Your task to perform on an android device: turn off location history Image 0: 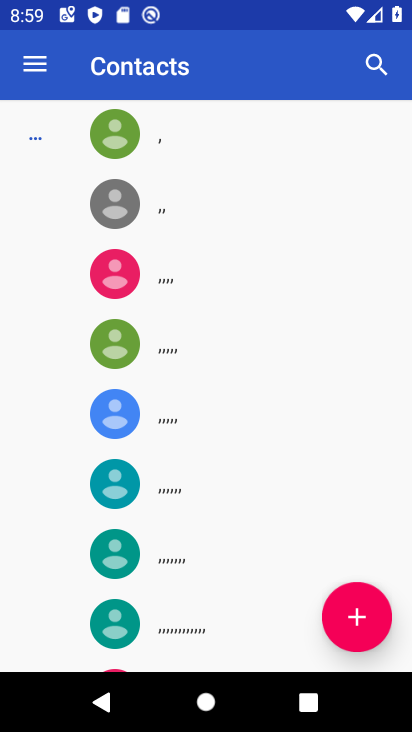
Step 0: press home button
Your task to perform on an android device: turn off location history Image 1: 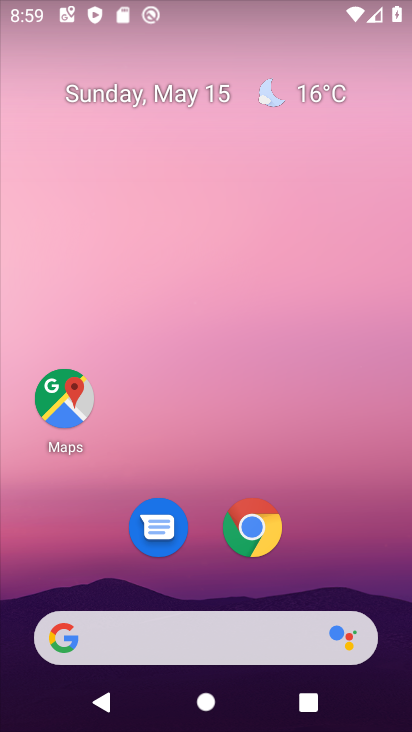
Step 1: click (70, 409)
Your task to perform on an android device: turn off location history Image 2: 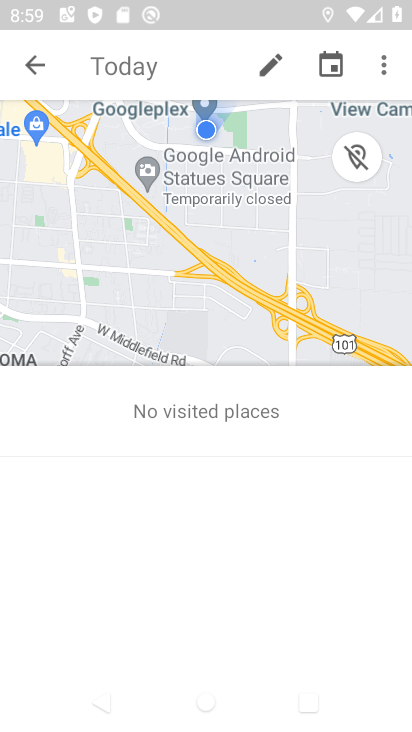
Step 2: click (386, 66)
Your task to perform on an android device: turn off location history Image 3: 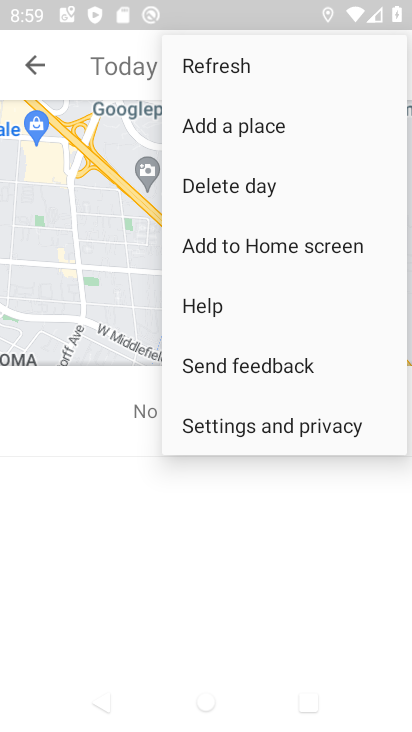
Step 3: click (241, 427)
Your task to perform on an android device: turn off location history Image 4: 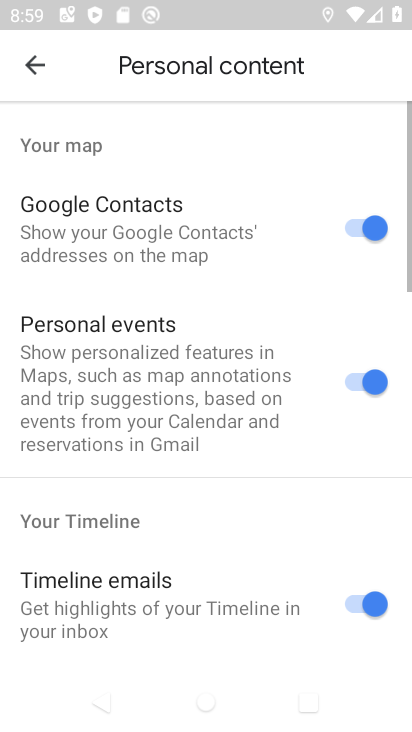
Step 4: drag from (163, 595) to (146, 26)
Your task to perform on an android device: turn off location history Image 5: 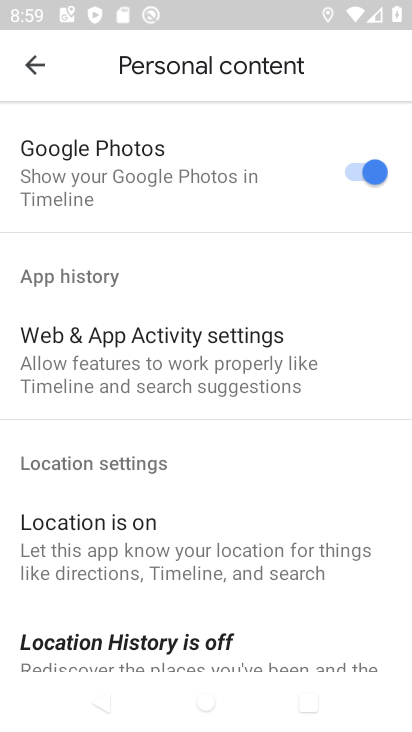
Step 5: drag from (135, 549) to (144, 149)
Your task to perform on an android device: turn off location history Image 6: 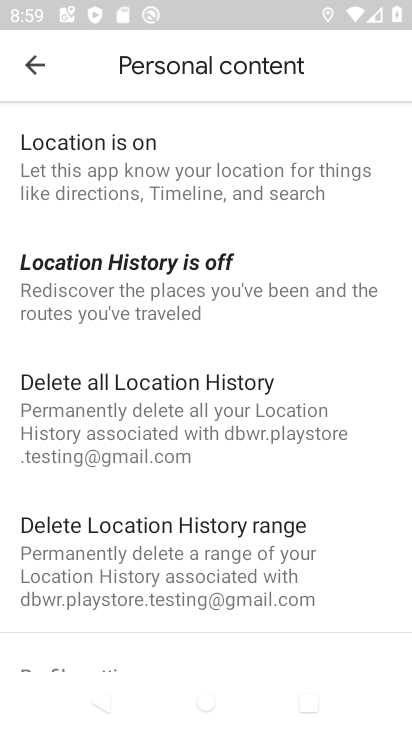
Step 6: click (96, 282)
Your task to perform on an android device: turn off location history Image 7: 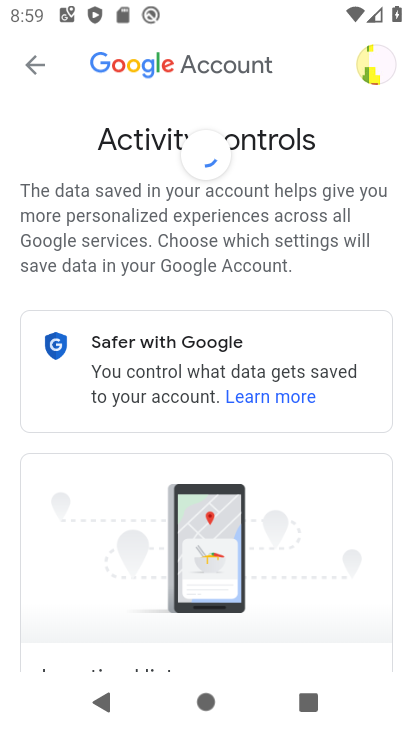
Step 7: drag from (291, 573) to (270, 13)
Your task to perform on an android device: turn off location history Image 8: 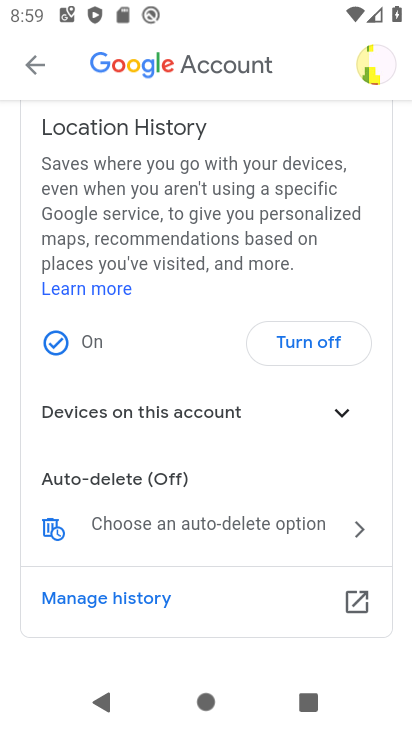
Step 8: click (323, 337)
Your task to perform on an android device: turn off location history Image 9: 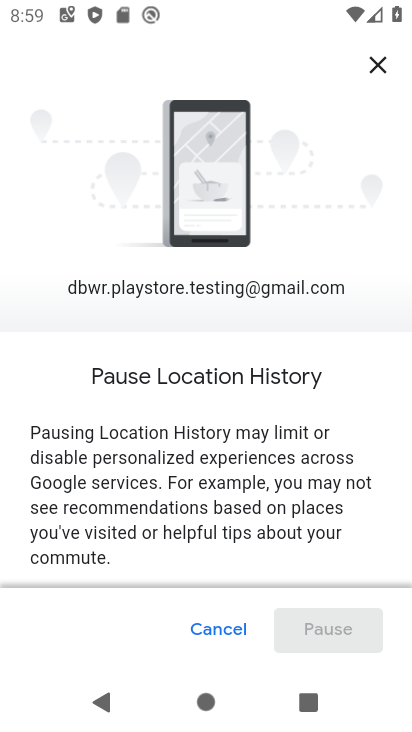
Step 9: drag from (206, 543) to (168, 0)
Your task to perform on an android device: turn off location history Image 10: 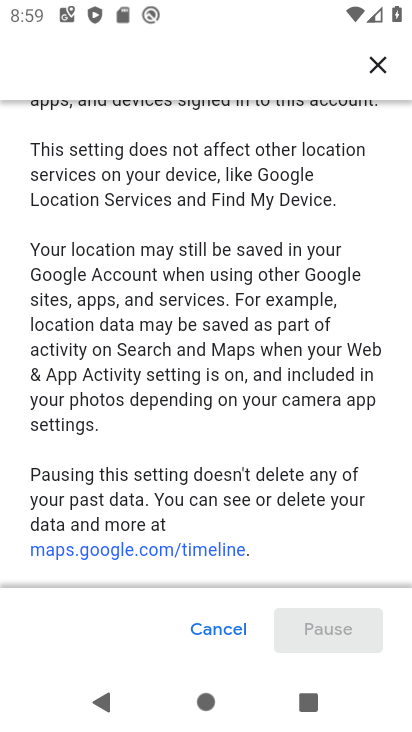
Step 10: drag from (219, 421) to (191, 33)
Your task to perform on an android device: turn off location history Image 11: 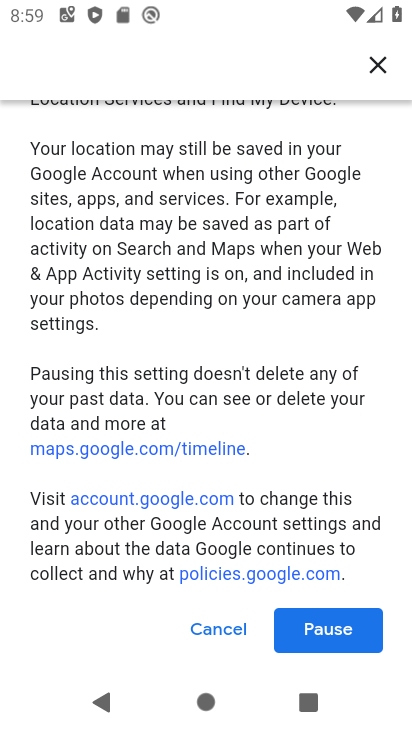
Step 11: click (343, 626)
Your task to perform on an android device: turn off location history Image 12: 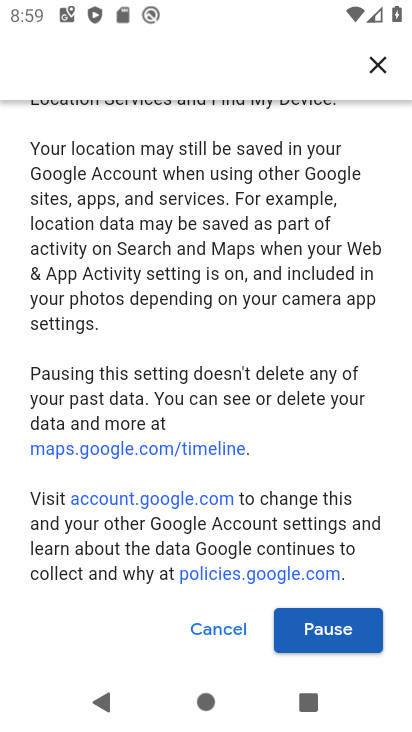
Step 12: click (321, 635)
Your task to perform on an android device: turn off location history Image 13: 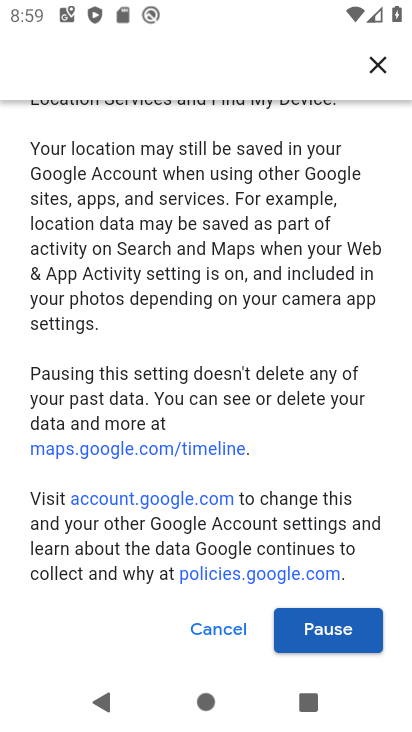
Step 13: click (311, 632)
Your task to perform on an android device: turn off location history Image 14: 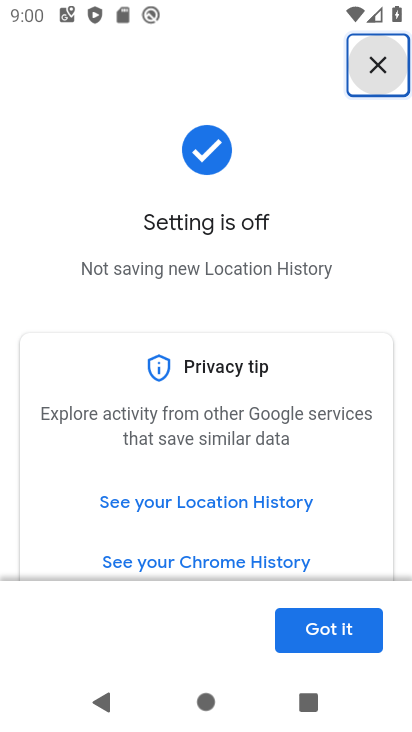
Step 14: click (311, 632)
Your task to perform on an android device: turn off location history Image 15: 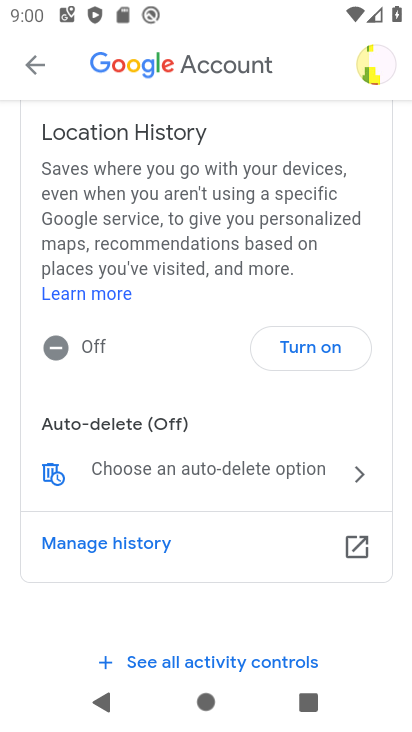
Step 15: task complete